Your task to perform on an android device: turn on wifi Image 0: 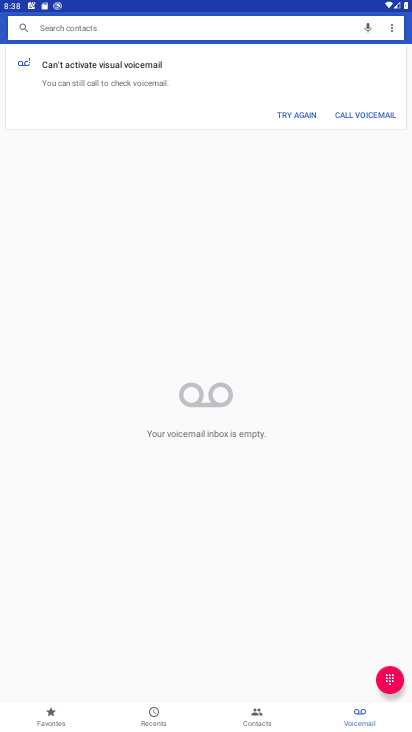
Step 0: press home button
Your task to perform on an android device: turn on wifi Image 1: 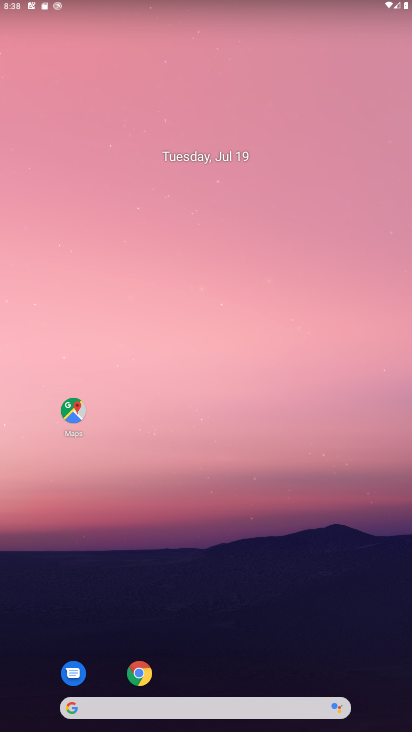
Step 1: drag from (359, 656) to (289, 84)
Your task to perform on an android device: turn on wifi Image 2: 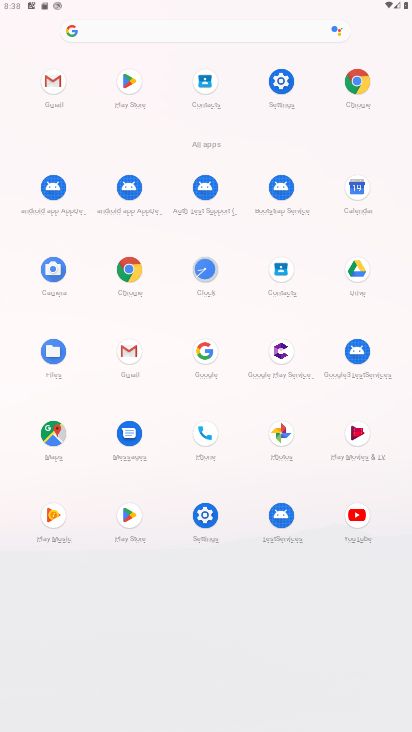
Step 2: click (205, 515)
Your task to perform on an android device: turn on wifi Image 3: 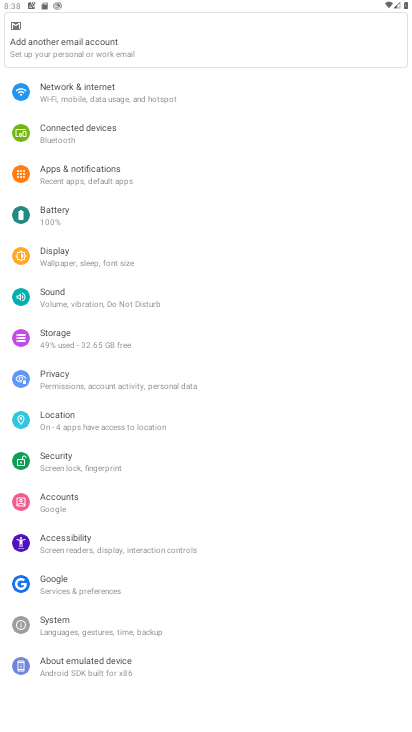
Step 3: click (72, 82)
Your task to perform on an android device: turn on wifi Image 4: 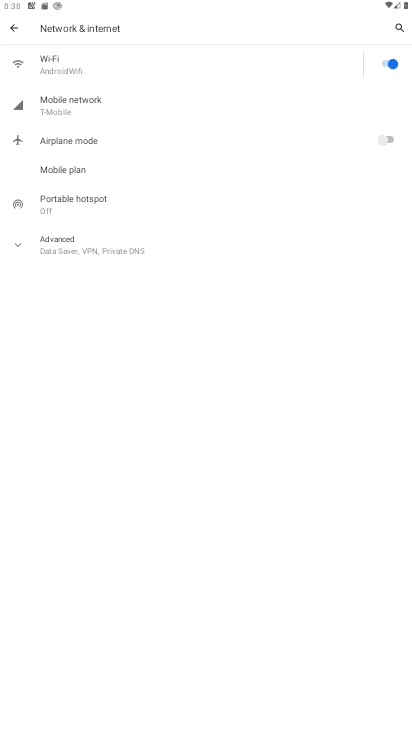
Step 4: task complete